Your task to perform on an android device: open a bookmark in the chrome app Image 0: 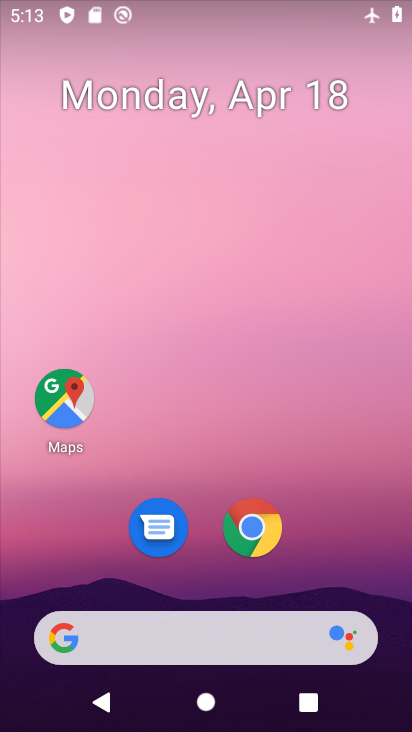
Step 0: click (254, 524)
Your task to perform on an android device: open a bookmark in the chrome app Image 1: 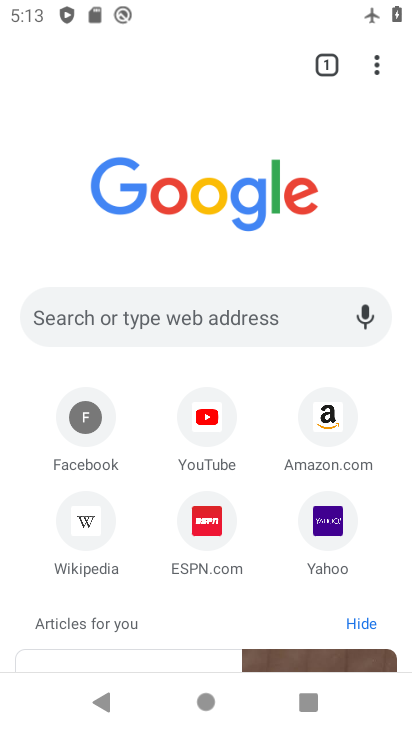
Step 1: click (378, 60)
Your task to perform on an android device: open a bookmark in the chrome app Image 2: 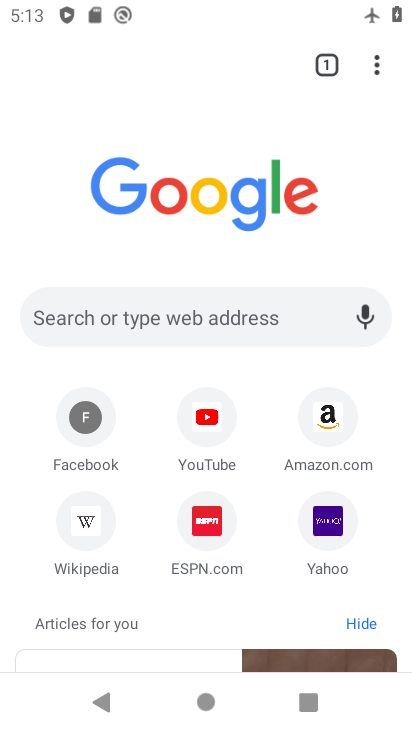
Step 2: click (379, 61)
Your task to perform on an android device: open a bookmark in the chrome app Image 3: 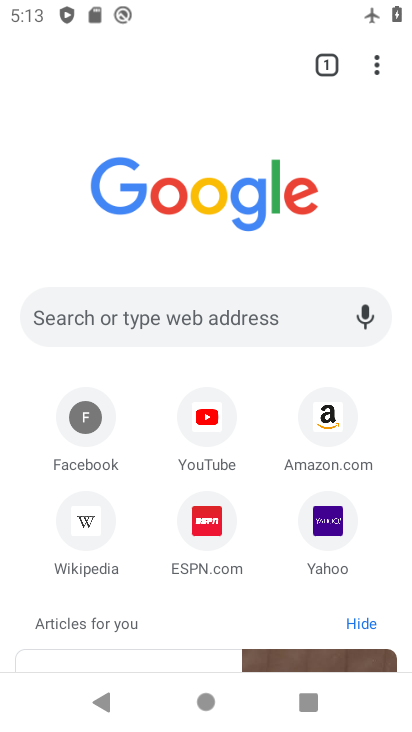
Step 3: click (378, 63)
Your task to perform on an android device: open a bookmark in the chrome app Image 4: 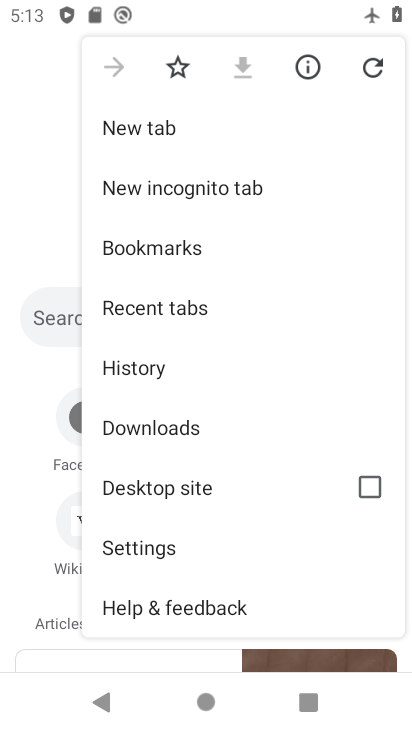
Step 4: click (172, 241)
Your task to perform on an android device: open a bookmark in the chrome app Image 5: 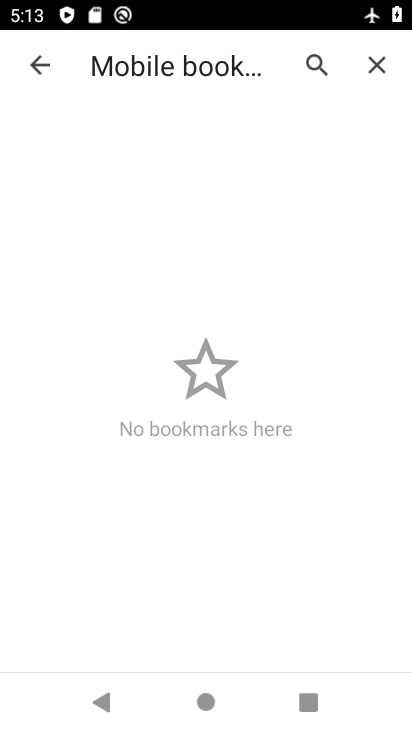
Step 5: task complete